Your task to perform on an android device: Check the weather Image 0: 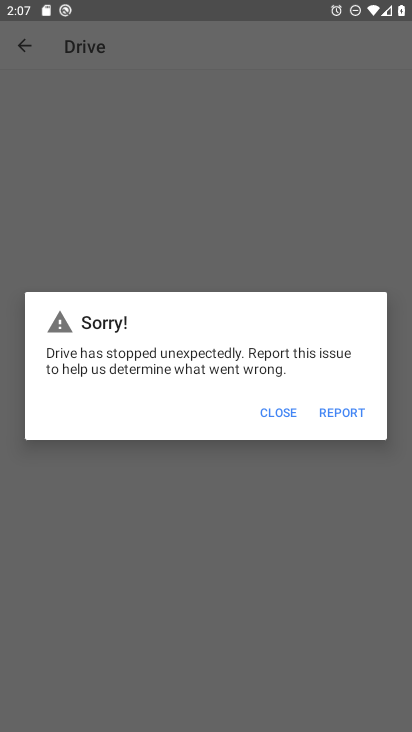
Step 0: press home button
Your task to perform on an android device: Check the weather Image 1: 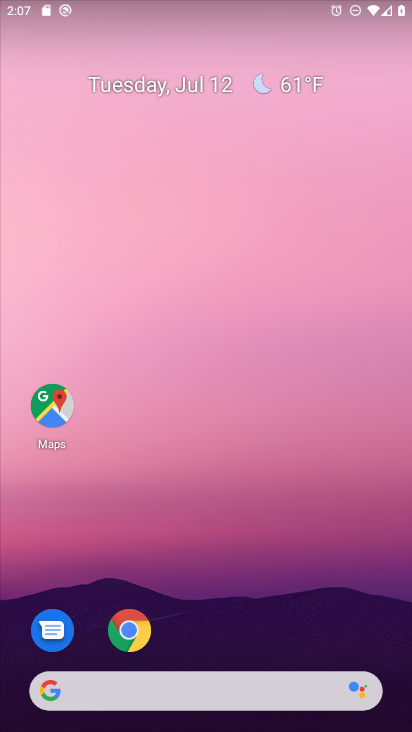
Step 1: drag from (236, 645) to (215, 170)
Your task to perform on an android device: Check the weather Image 2: 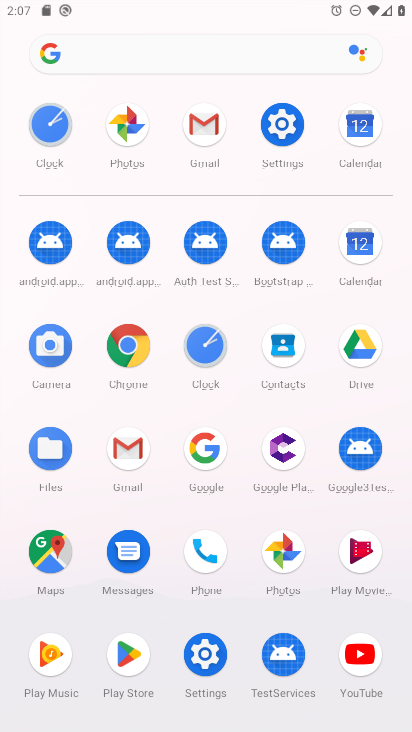
Step 2: click (196, 465)
Your task to perform on an android device: Check the weather Image 3: 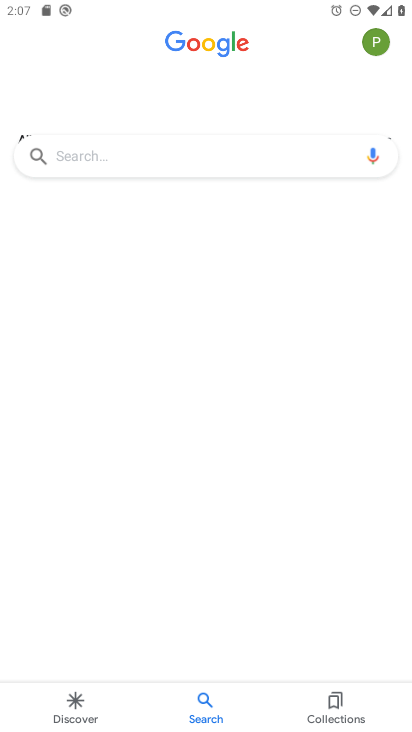
Step 3: click (160, 156)
Your task to perform on an android device: Check the weather Image 4: 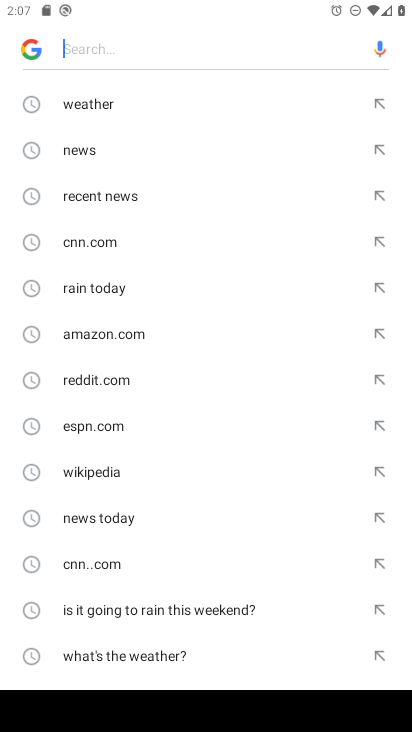
Step 4: click (104, 115)
Your task to perform on an android device: Check the weather Image 5: 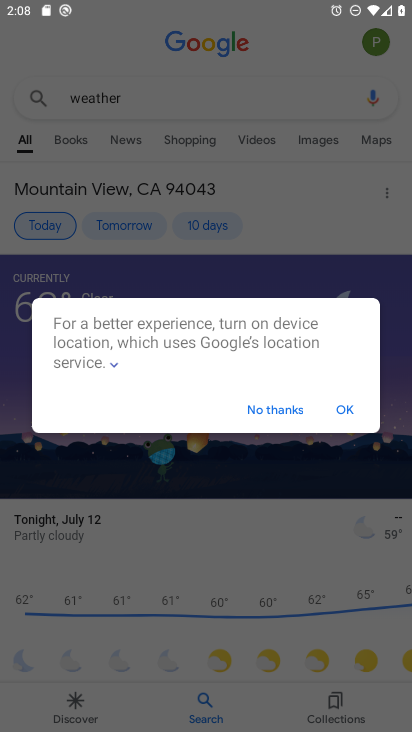
Step 5: click (350, 409)
Your task to perform on an android device: Check the weather Image 6: 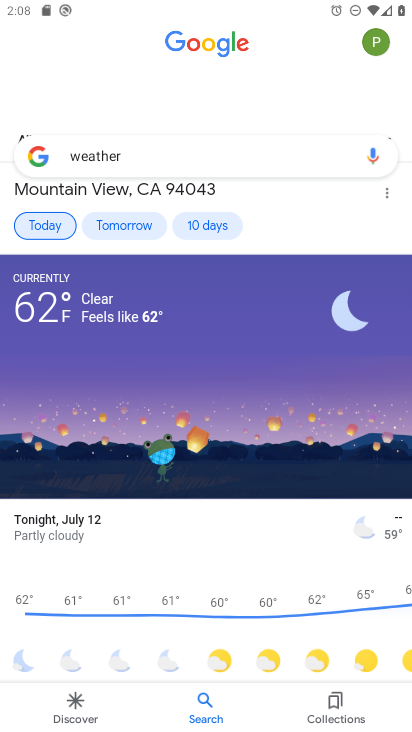
Step 6: task complete